Your task to perform on an android device: set an alarm Image 0: 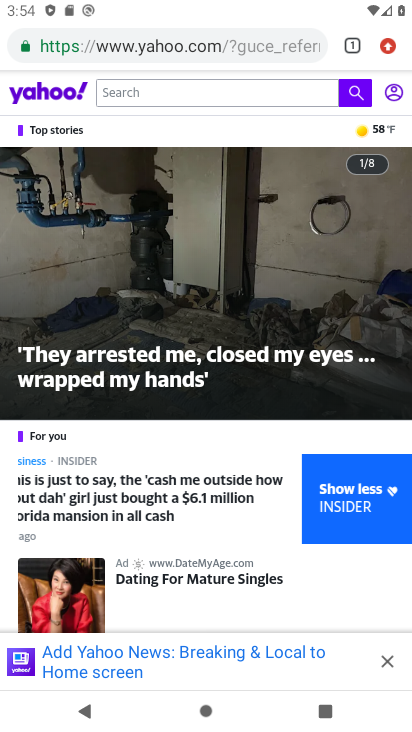
Step 0: press home button
Your task to perform on an android device: set an alarm Image 1: 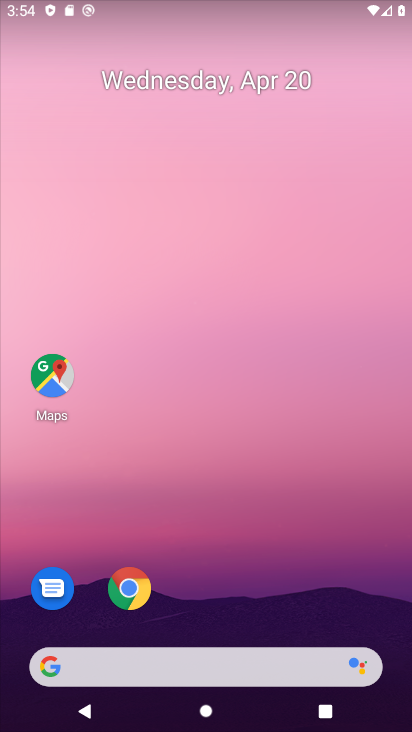
Step 1: drag from (205, 306) to (199, 7)
Your task to perform on an android device: set an alarm Image 2: 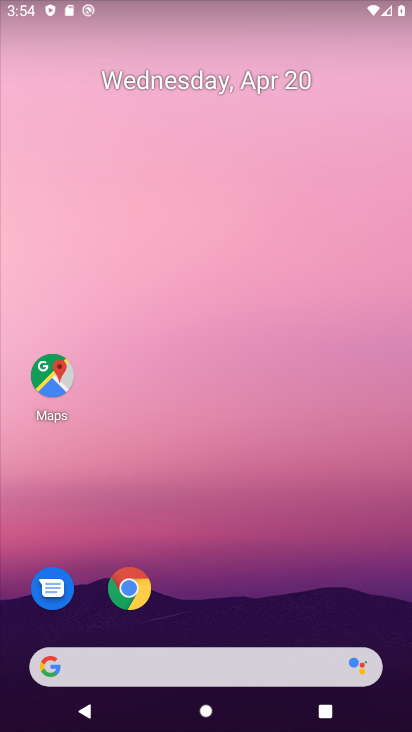
Step 2: drag from (219, 609) to (234, 26)
Your task to perform on an android device: set an alarm Image 3: 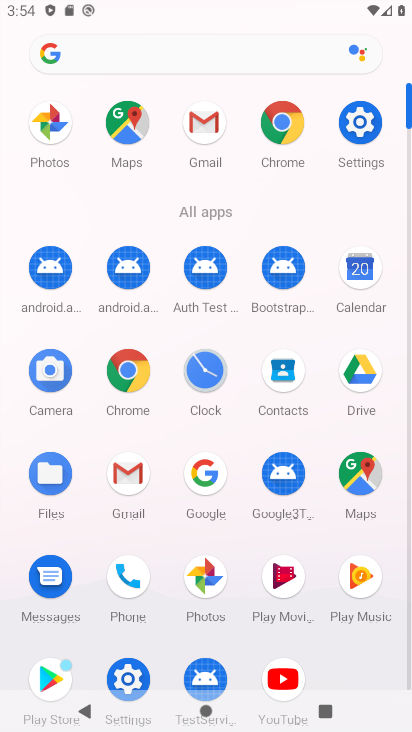
Step 3: click (205, 376)
Your task to perform on an android device: set an alarm Image 4: 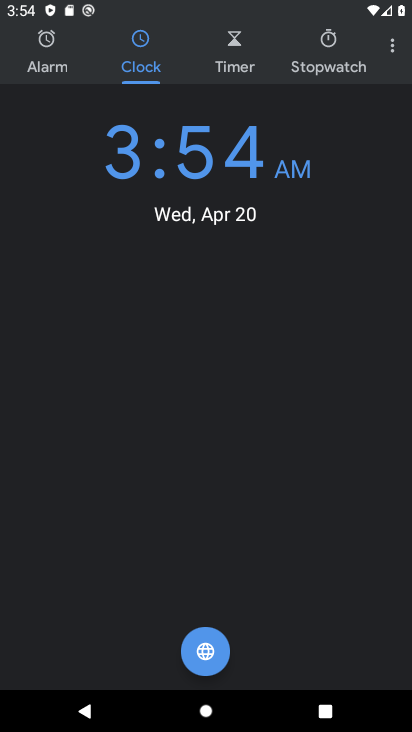
Step 4: click (52, 57)
Your task to perform on an android device: set an alarm Image 5: 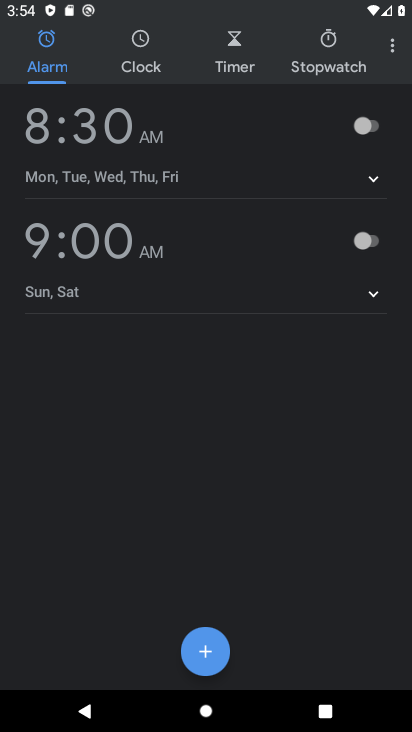
Step 5: click (205, 651)
Your task to perform on an android device: set an alarm Image 6: 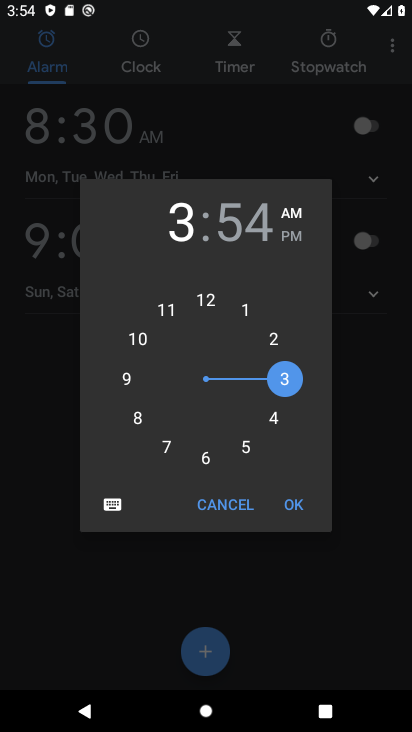
Step 6: click (148, 342)
Your task to perform on an android device: set an alarm Image 7: 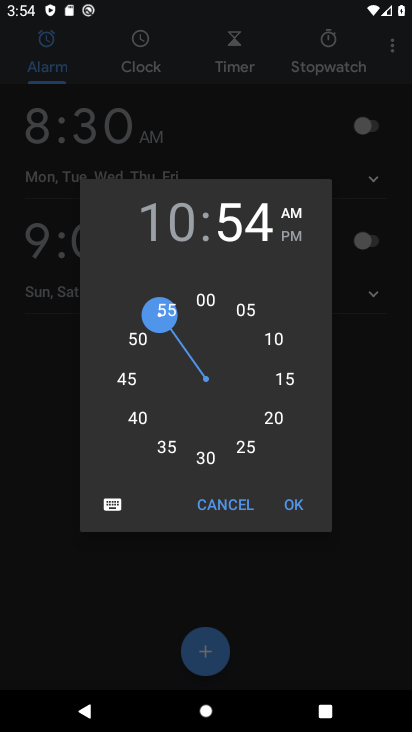
Step 7: click (286, 503)
Your task to perform on an android device: set an alarm Image 8: 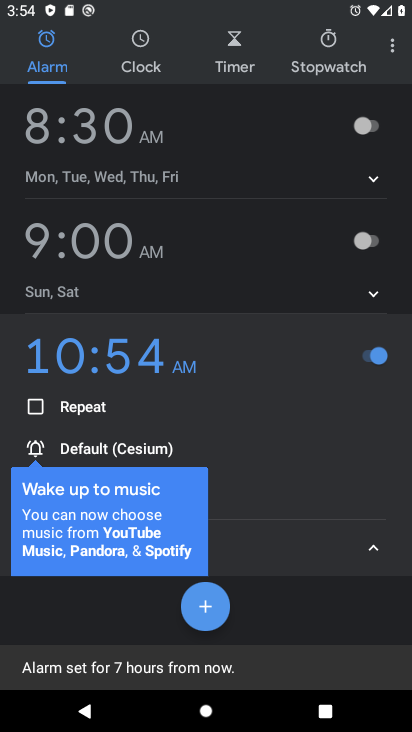
Step 8: task complete